Your task to perform on an android device: Go to privacy settings Image 0: 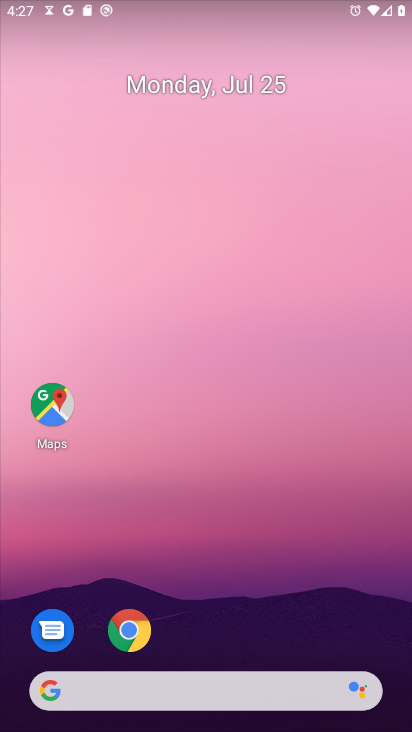
Step 0: drag from (187, 684) to (273, 121)
Your task to perform on an android device: Go to privacy settings Image 1: 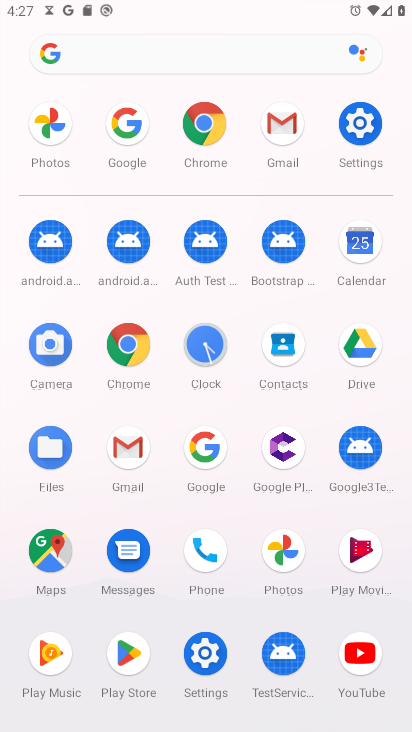
Step 1: click (361, 123)
Your task to perform on an android device: Go to privacy settings Image 2: 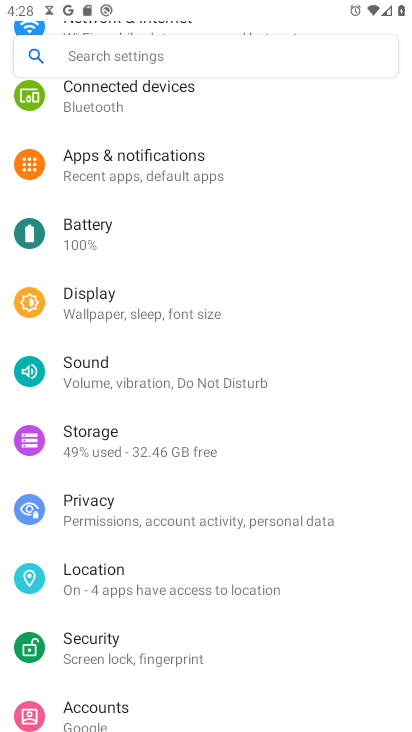
Step 2: click (83, 510)
Your task to perform on an android device: Go to privacy settings Image 3: 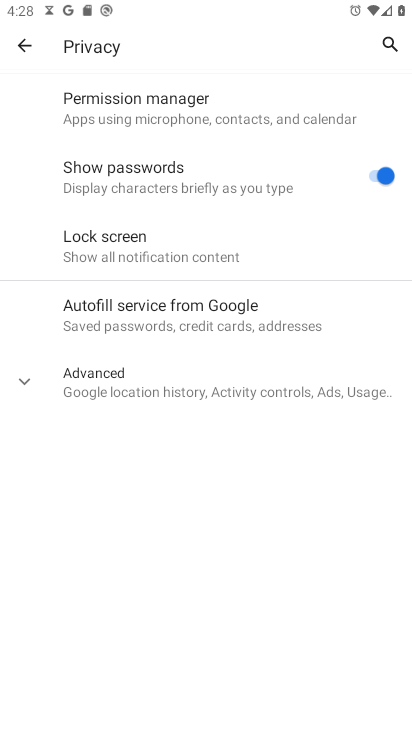
Step 3: task complete